Your task to perform on an android device: change timer sound Image 0: 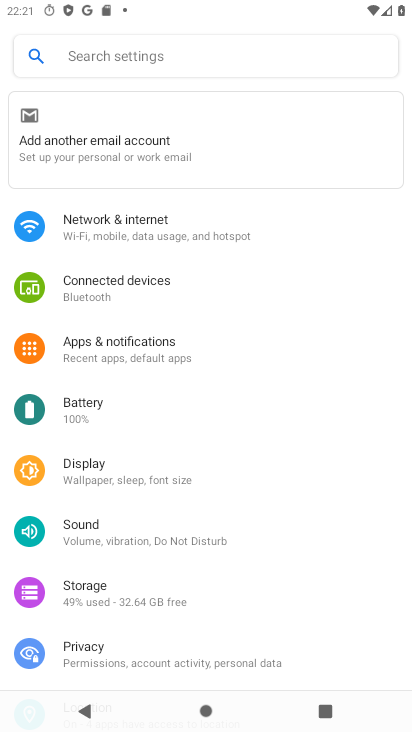
Step 0: press home button
Your task to perform on an android device: change timer sound Image 1: 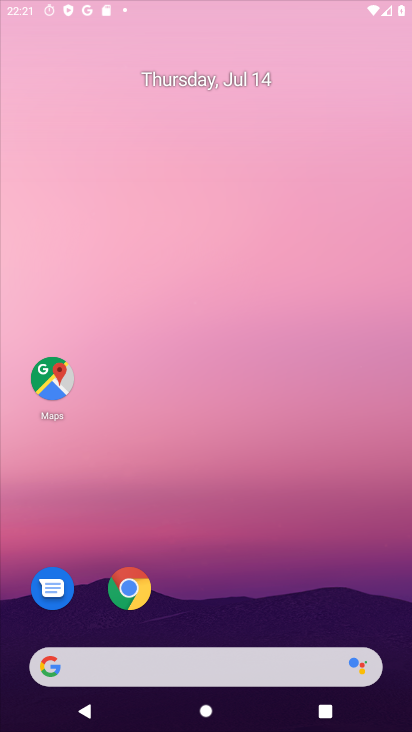
Step 1: drag from (253, 590) to (307, 75)
Your task to perform on an android device: change timer sound Image 2: 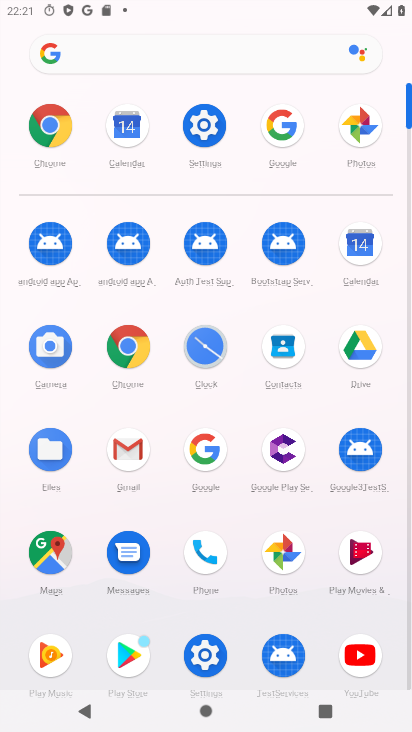
Step 2: click (211, 347)
Your task to perform on an android device: change timer sound Image 3: 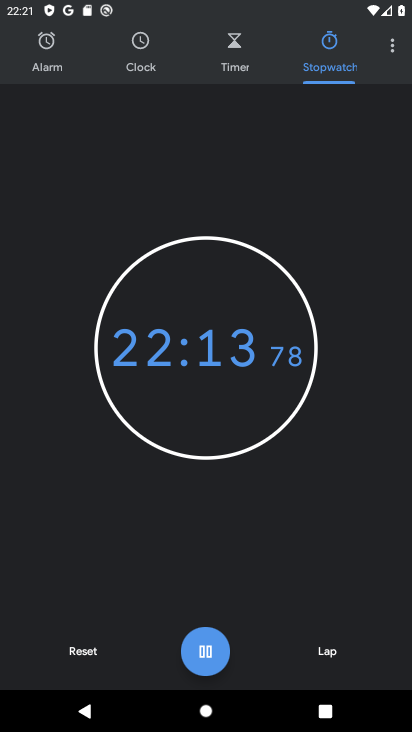
Step 3: click (386, 42)
Your task to perform on an android device: change timer sound Image 4: 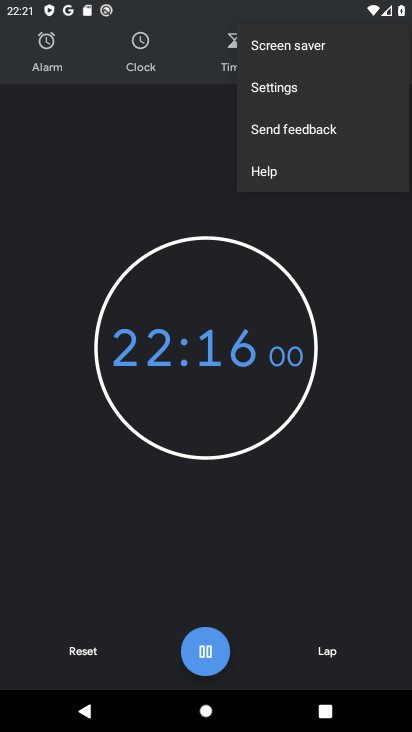
Step 4: click (273, 92)
Your task to perform on an android device: change timer sound Image 5: 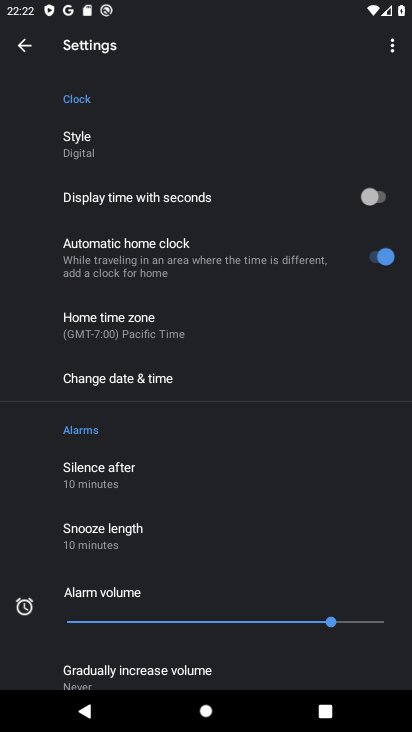
Step 5: drag from (189, 576) to (206, 183)
Your task to perform on an android device: change timer sound Image 6: 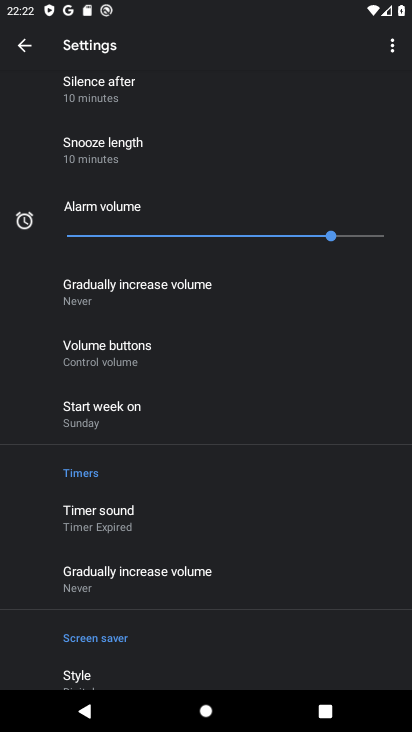
Step 6: click (129, 526)
Your task to perform on an android device: change timer sound Image 7: 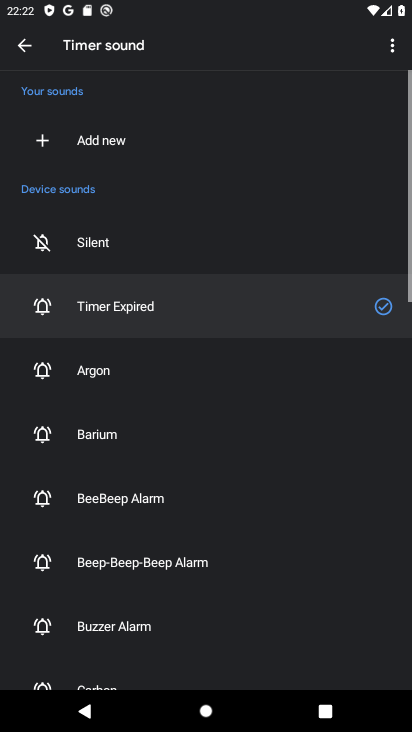
Step 7: click (105, 431)
Your task to perform on an android device: change timer sound Image 8: 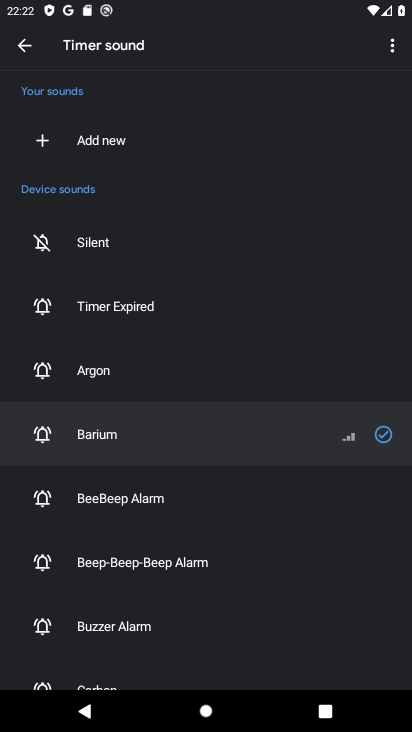
Step 8: task complete